Your task to perform on an android device: Go to Android settings Image 0: 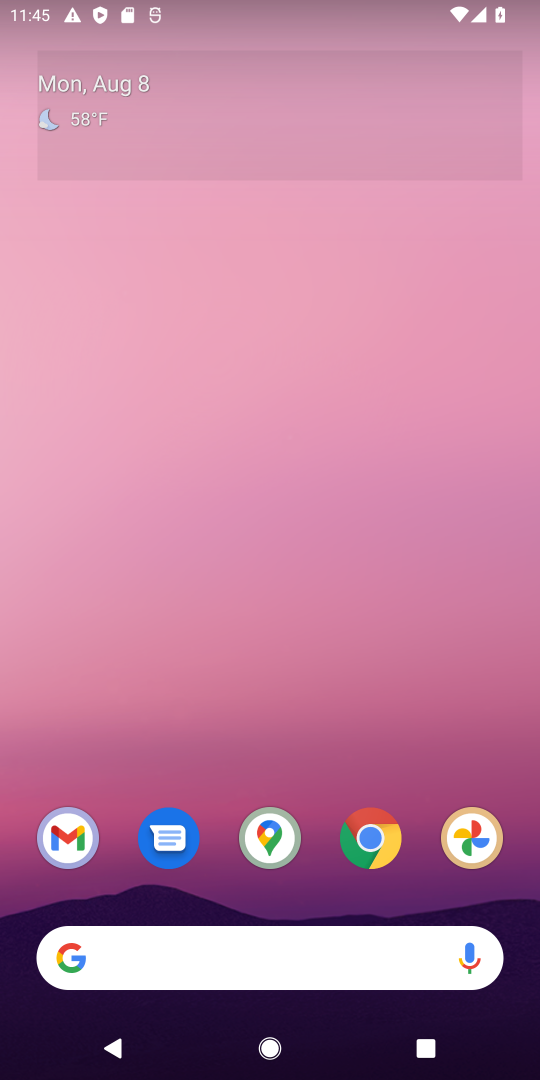
Step 0: press home button
Your task to perform on an android device: Go to Android settings Image 1: 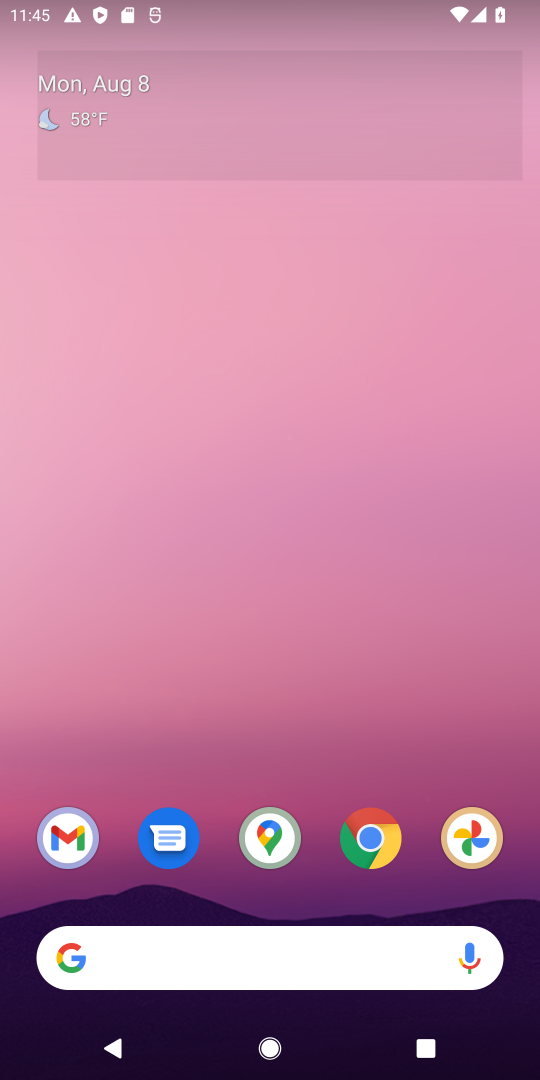
Step 1: drag from (302, 911) to (106, 22)
Your task to perform on an android device: Go to Android settings Image 2: 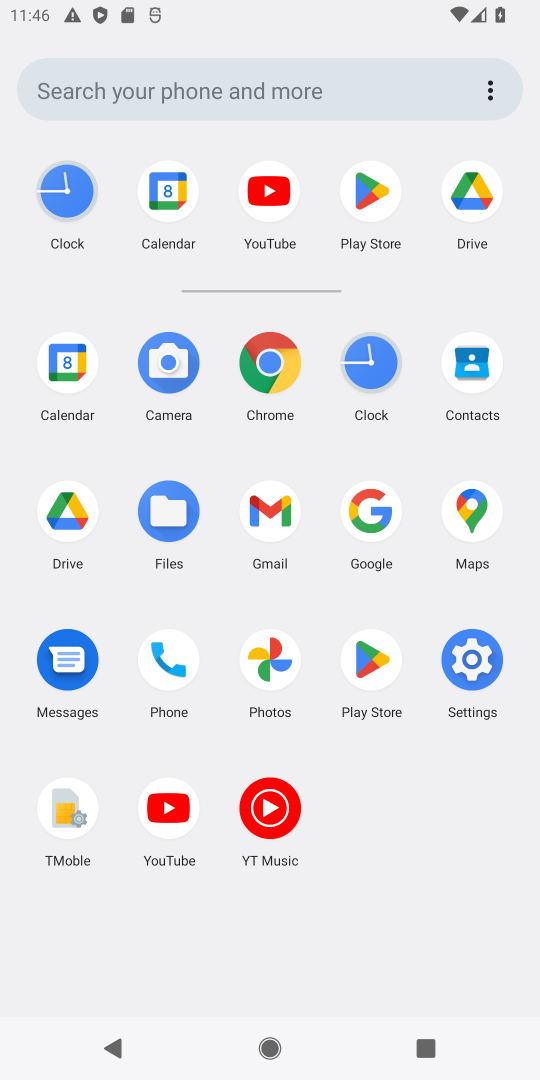
Step 2: click (471, 666)
Your task to perform on an android device: Go to Android settings Image 3: 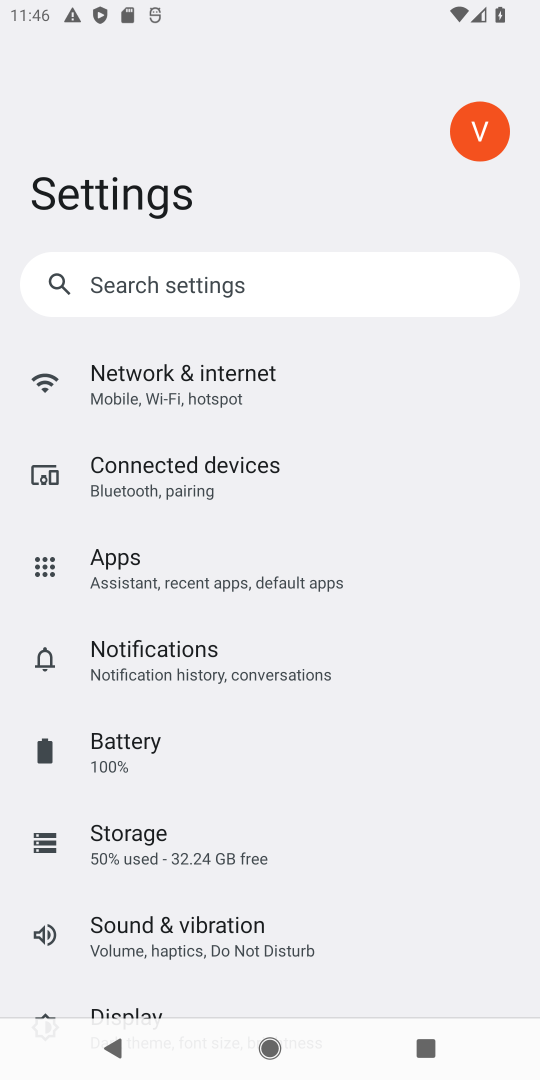
Step 3: task complete